Your task to perform on an android device: allow notifications from all sites in the chrome app Image 0: 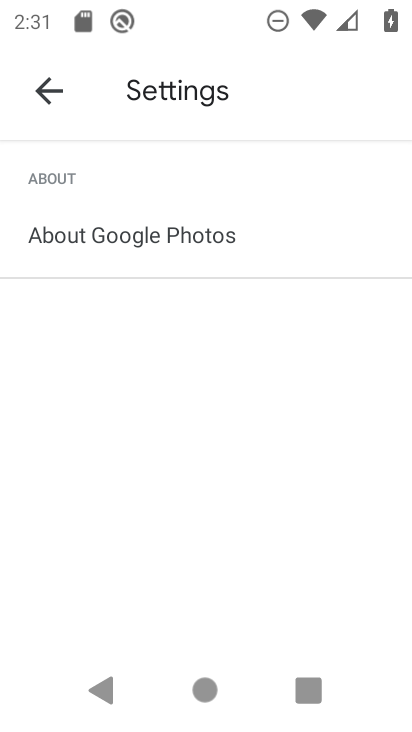
Step 0: press home button
Your task to perform on an android device: allow notifications from all sites in the chrome app Image 1: 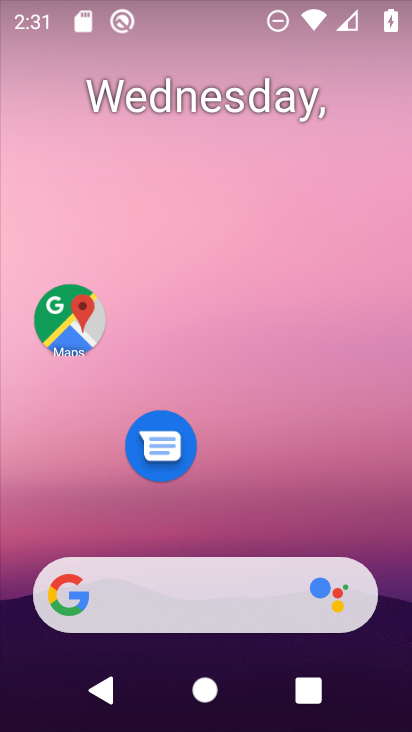
Step 1: drag from (398, 395) to (312, 79)
Your task to perform on an android device: allow notifications from all sites in the chrome app Image 2: 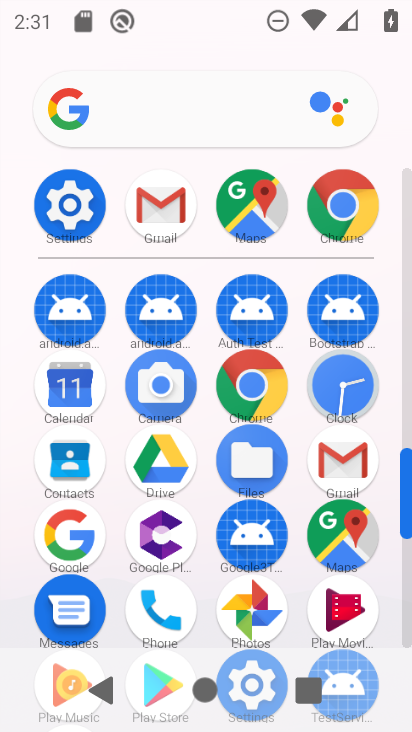
Step 2: click (342, 231)
Your task to perform on an android device: allow notifications from all sites in the chrome app Image 3: 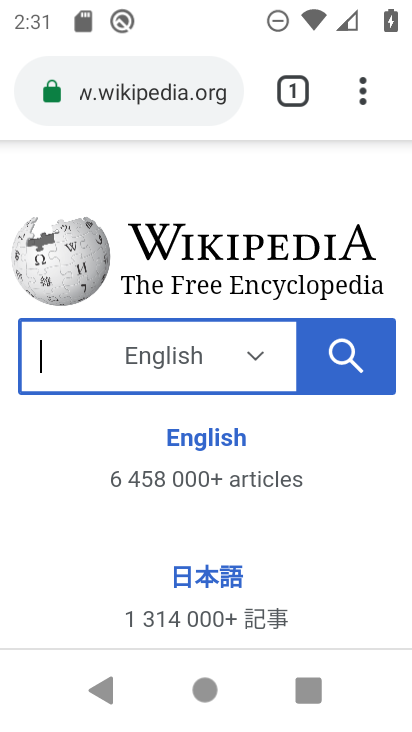
Step 3: click (376, 86)
Your task to perform on an android device: allow notifications from all sites in the chrome app Image 4: 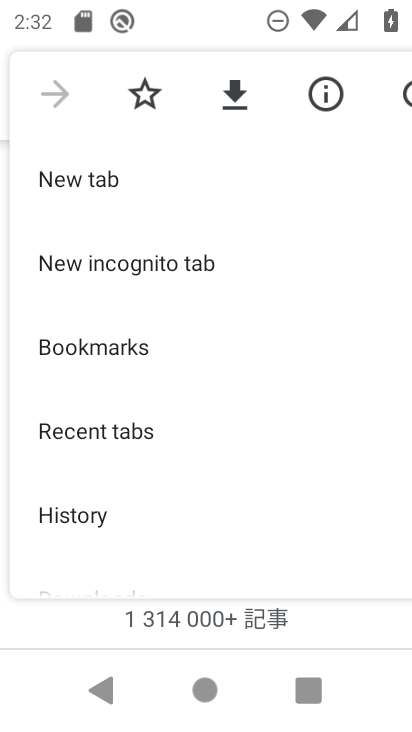
Step 4: drag from (250, 499) to (208, 221)
Your task to perform on an android device: allow notifications from all sites in the chrome app Image 5: 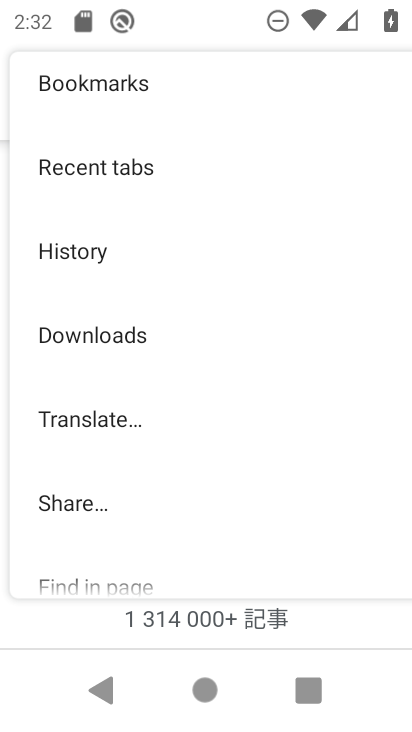
Step 5: drag from (211, 474) to (159, 253)
Your task to perform on an android device: allow notifications from all sites in the chrome app Image 6: 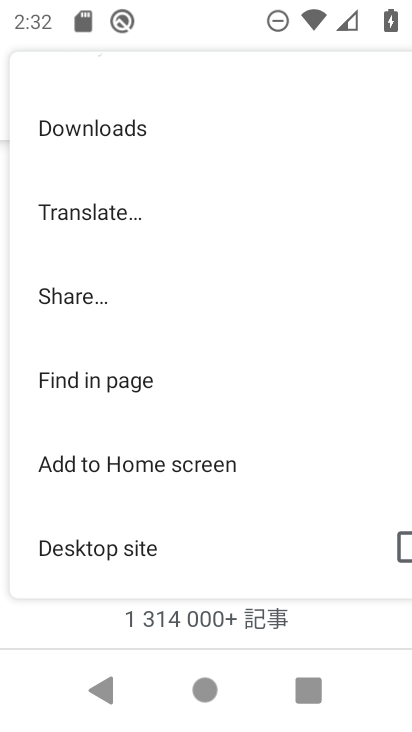
Step 6: drag from (218, 472) to (160, 127)
Your task to perform on an android device: allow notifications from all sites in the chrome app Image 7: 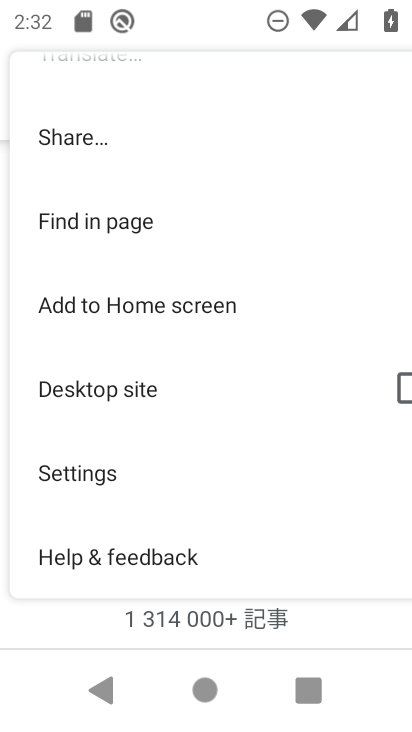
Step 7: click (168, 459)
Your task to perform on an android device: allow notifications from all sites in the chrome app Image 8: 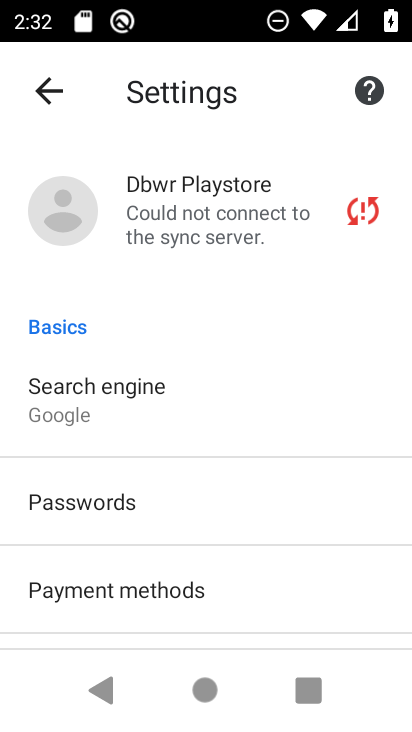
Step 8: drag from (183, 532) to (196, 226)
Your task to perform on an android device: allow notifications from all sites in the chrome app Image 9: 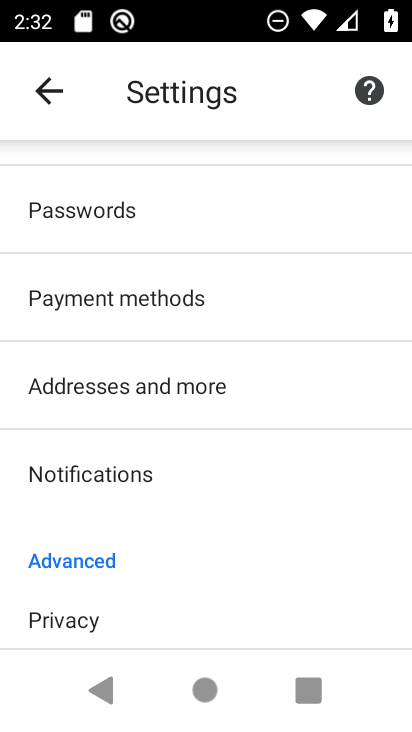
Step 9: drag from (163, 489) to (147, 416)
Your task to perform on an android device: allow notifications from all sites in the chrome app Image 10: 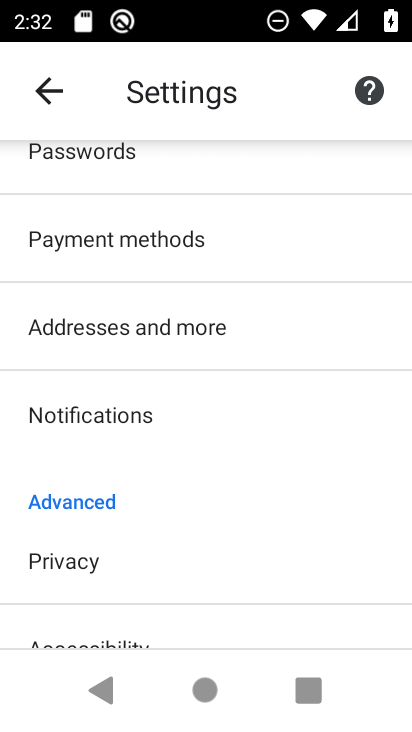
Step 10: drag from (151, 485) to (153, 228)
Your task to perform on an android device: allow notifications from all sites in the chrome app Image 11: 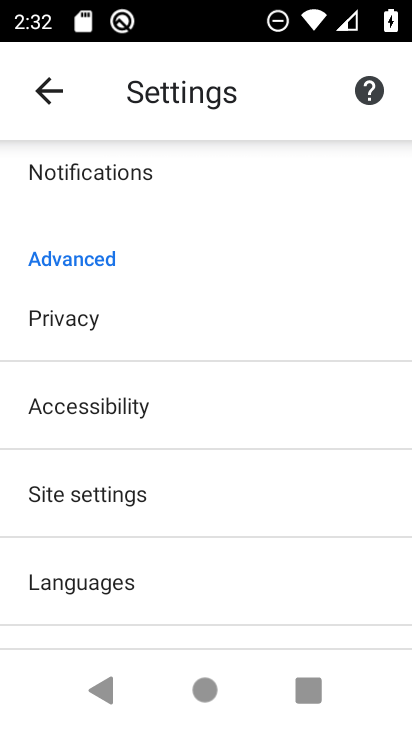
Step 11: click (154, 455)
Your task to perform on an android device: allow notifications from all sites in the chrome app Image 12: 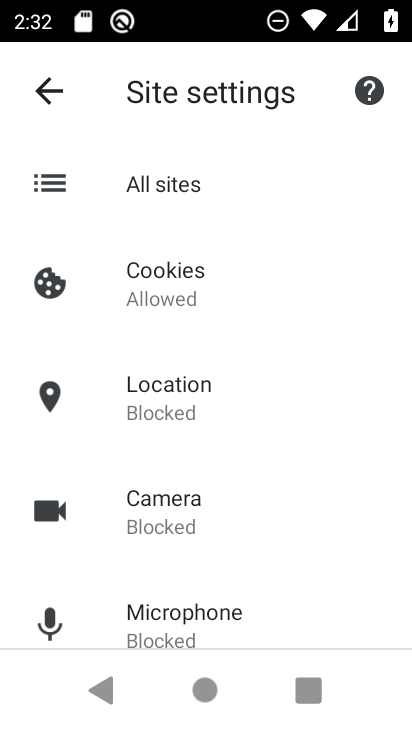
Step 12: click (41, 100)
Your task to perform on an android device: allow notifications from all sites in the chrome app Image 13: 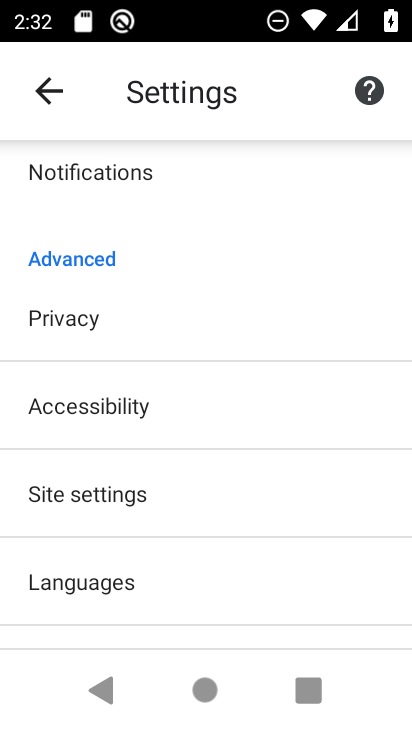
Step 13: click (133, 190)
Your task to perform on an android device: allow notifications from all sites in the chrome app Image 14: 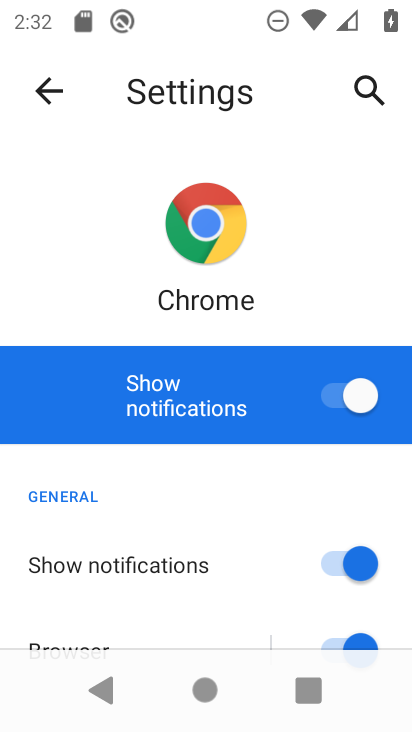
Step 14: task complete